Your task to perform on an android device: turn pop-ups off in chrome Image 0: 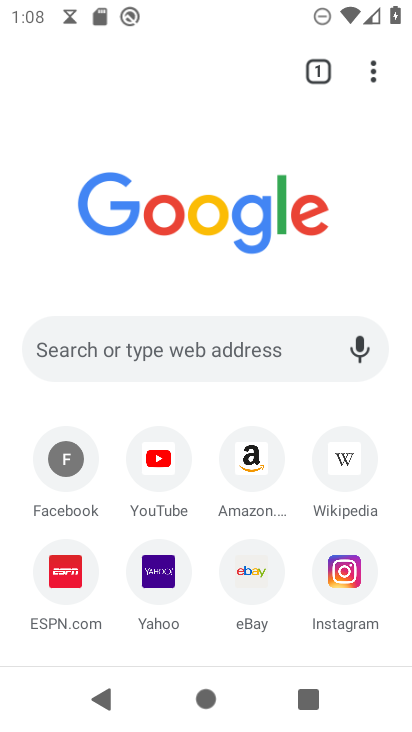
Step 0: press home button
Your task to perform on an android device: turn pop-ups off in chrome Image 1: 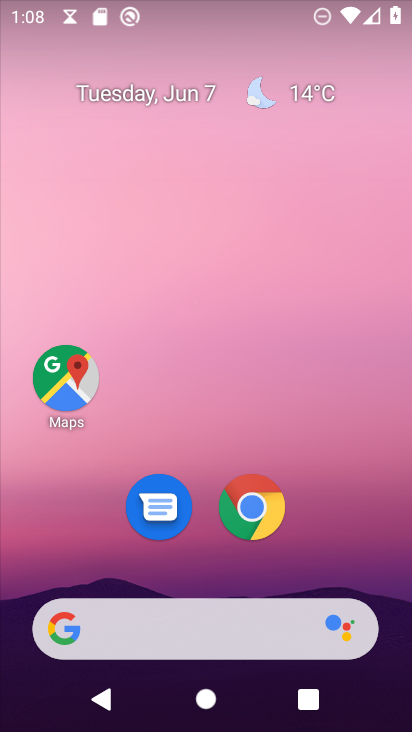
Step 1: click (241, 504)
Your task to perform on an android device: turn pop-ups off in chrome Image 2: 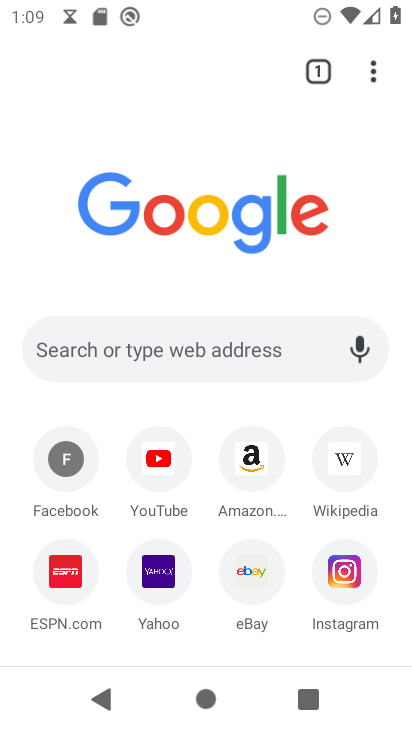
Step 2: click (361, 66)
Your task to perform on an android device: turn pop-ups off in chrome Image 3: 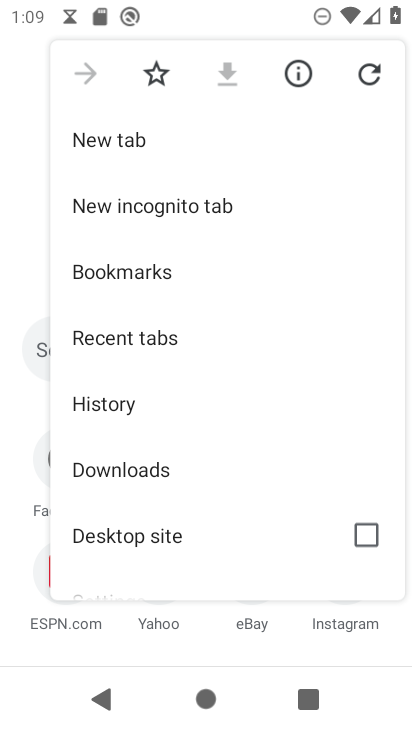
Step 3: drag from (131, 526) to (133, 217)
Your task to perform on an android device: turn pop-ups off in chrome Image 4: 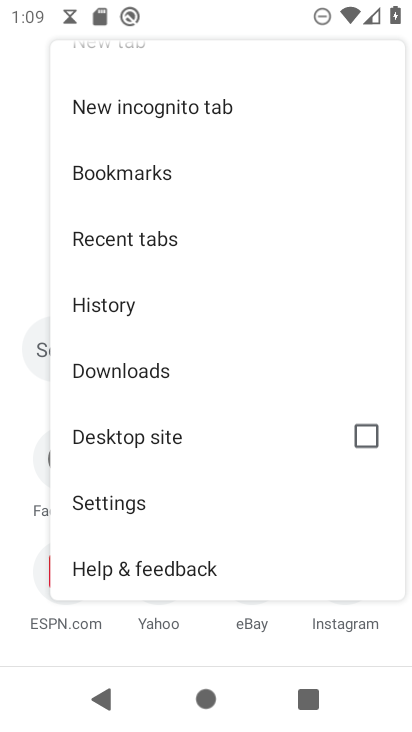
Step 4: click (150, 501)
Your task to perform on an android device: turn pop-ups off in chrome Image 5: 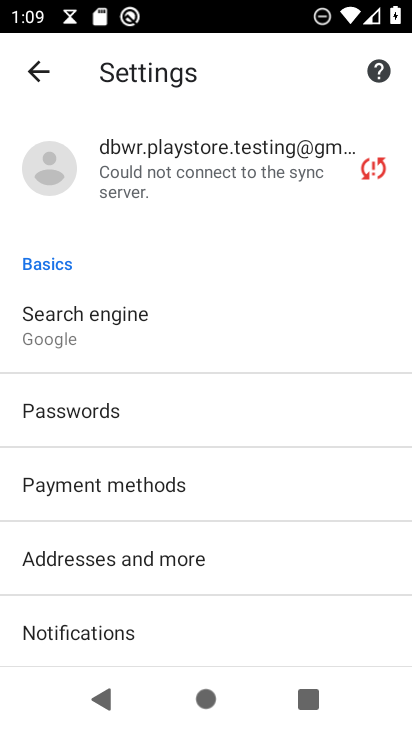
Step 5: drag from (129, 556) to (129, 188)
Your task to perform on an android device: turn pop-ups off in chrome Image 6: 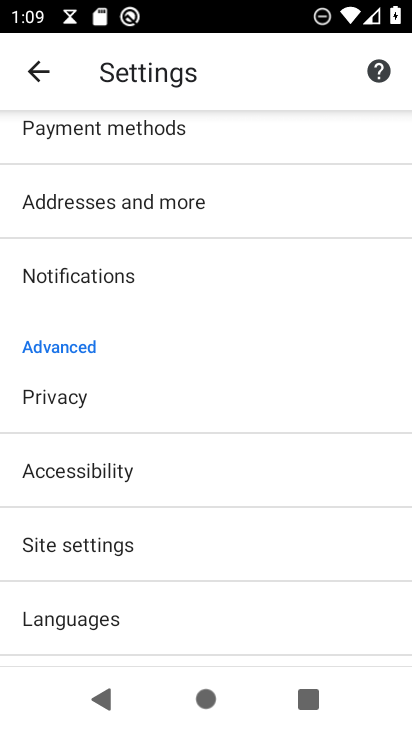
Step 6: drag from (137, 475) to (133, 320)
Your task to perform on an android device: turn pop-ups off in chrome Image 7: 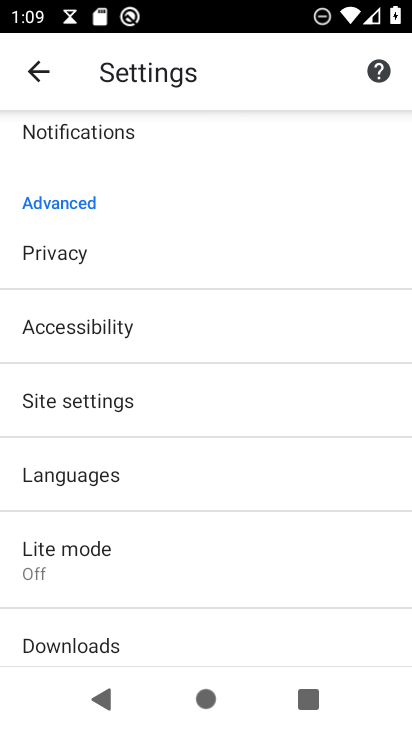
Step 7: click (113, 401)
Your task to perform on an android device: turn pop-ups off in chrome Image 8: 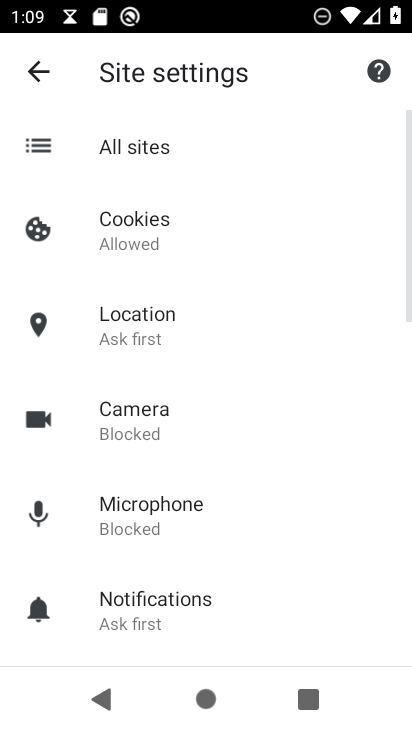
Step 8: drag from (147, 581) to (145, 163)
Your task to perform on an android device: turn pop-ups off in chrome Image 9: 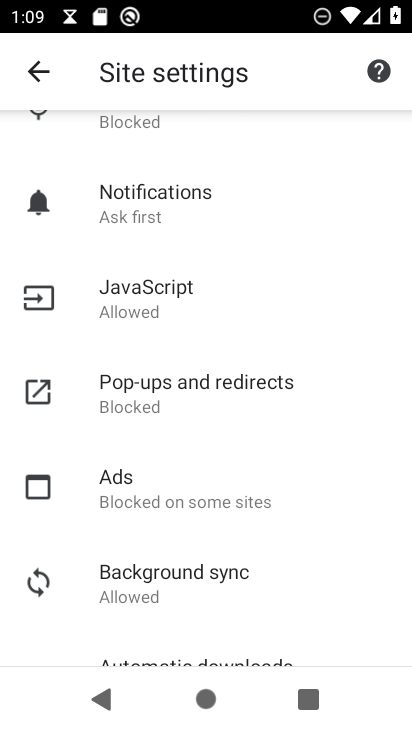
Step 9: click (191, 394)
Your task to perform on an android device: turn pop-ups off in chrome Image 10: 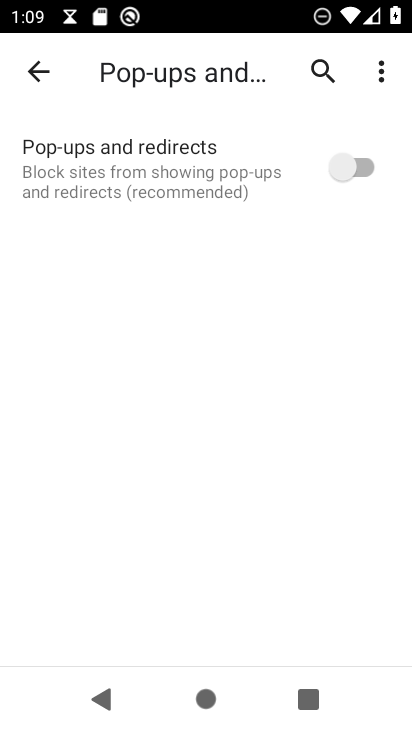
Step 10: task complete